Your task to perform on an android device: open a bookmark in the chrome app Image 0: 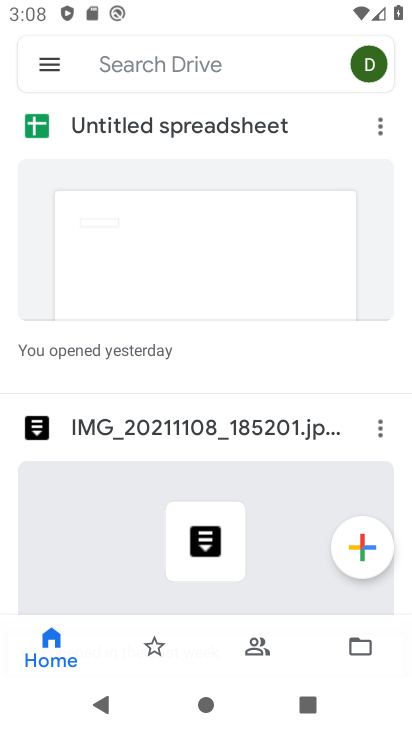
Step 0: press home button
Your task to perform on an android device: open a bookmark in the chrome app Image 1: 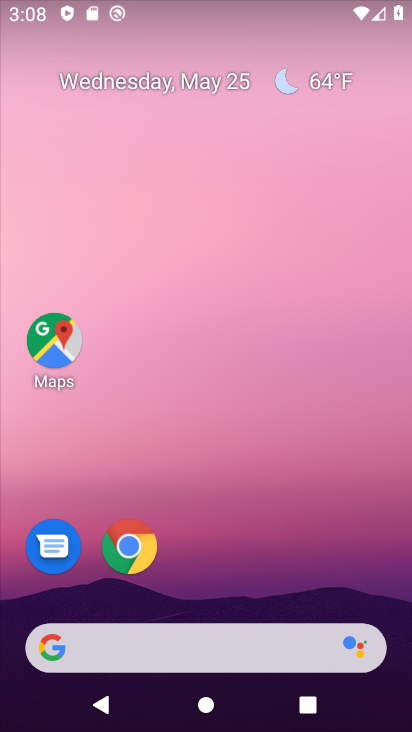
Step 1: click (132, 556)
Your task to perform on an android device: open a bookmark in the chrome app Image 2: 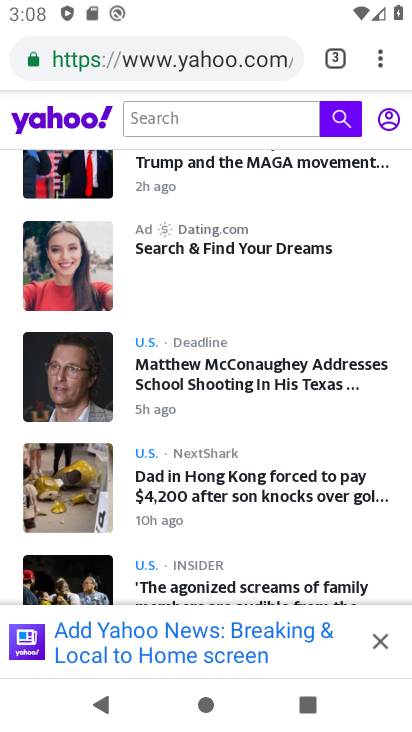
Step 2: click (383, 60)
Your task to perform on an android device: open a bookmark in the chrome app Image 3: 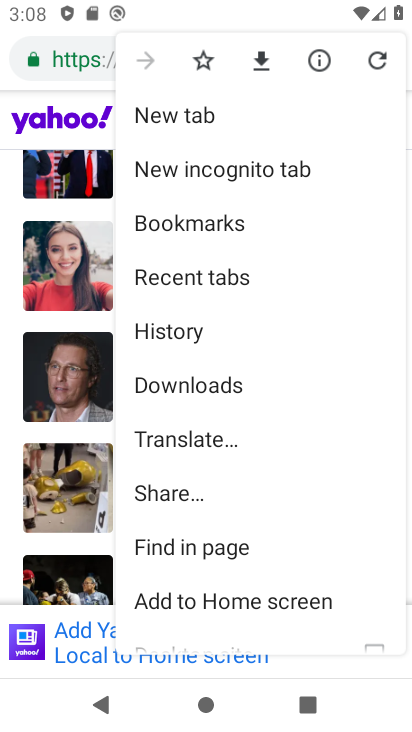
Step 3: click (225, 221)
Your task to perform on an android device: open a bookmark in the chrome app Image 4: 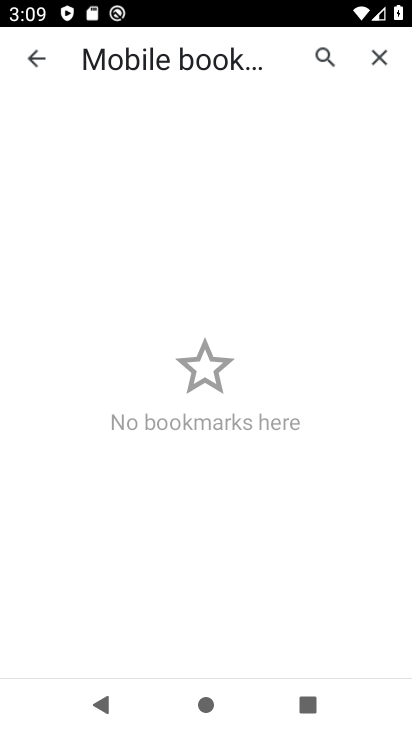
Step 4: task complete